Your task to perform on an android device: Open the Play Movies app and select the watchlist tab. Image 0: 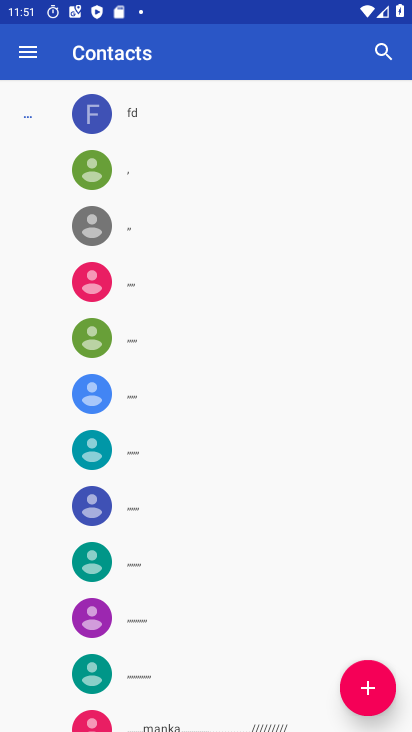
Step 0: press home button
Your task to perform on an android device: Open the Play Movies app and select the watchlist tab. Image 1: 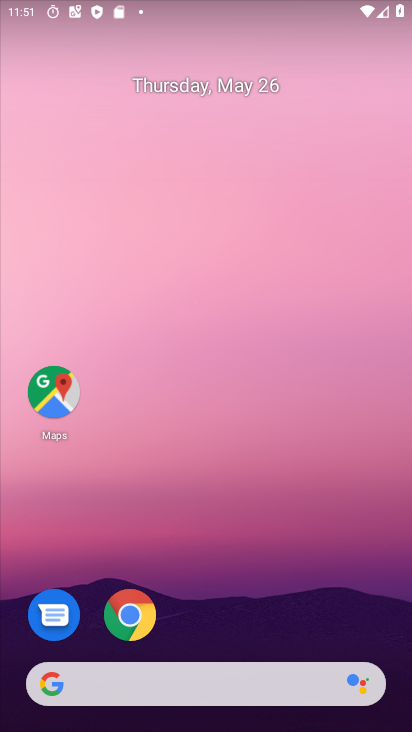
Step 1: drag from (219, 628) to (165, 383)
Your task to perform on an android device: Open the Play Movies app and select the watchlist tab. Image 2: 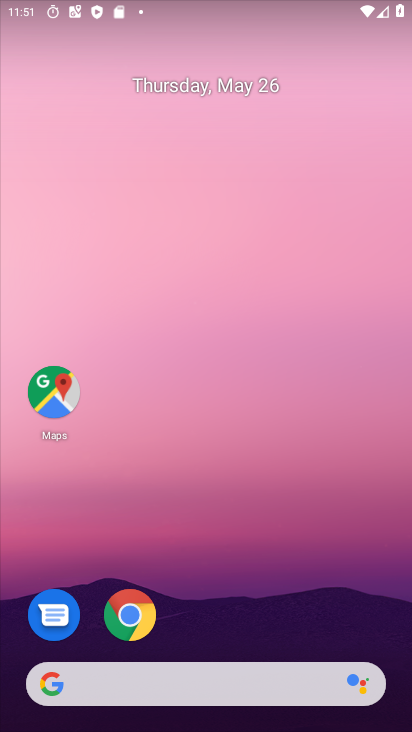
Step 2: drag from (205, 642) to (127, 259)
Your task to perform on an android device: Open the Play Movies app and select the watchlist tab. Image 3: 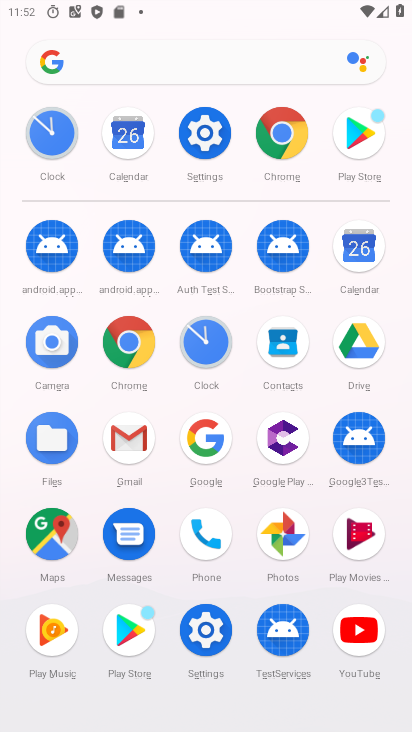
Step 3: click (360, 543)
Your task to perform on an android device: Open the Play Movies app and select the watchlist tab. Image 4: 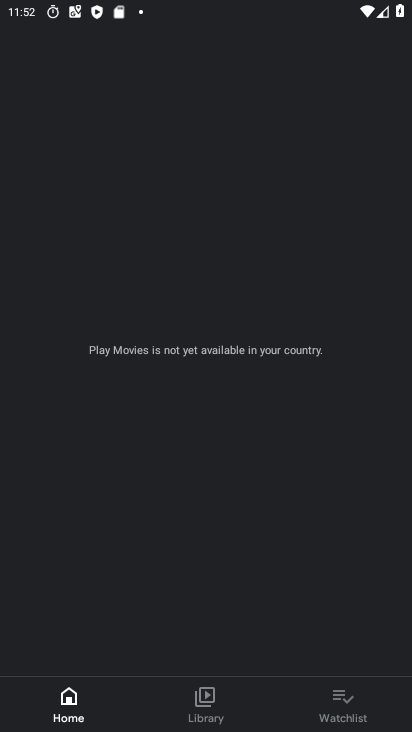
Step 4: click (351, 710)
Your task to perform on an android device: Open the Play Movies app and select the watchlist tab. Image 5: 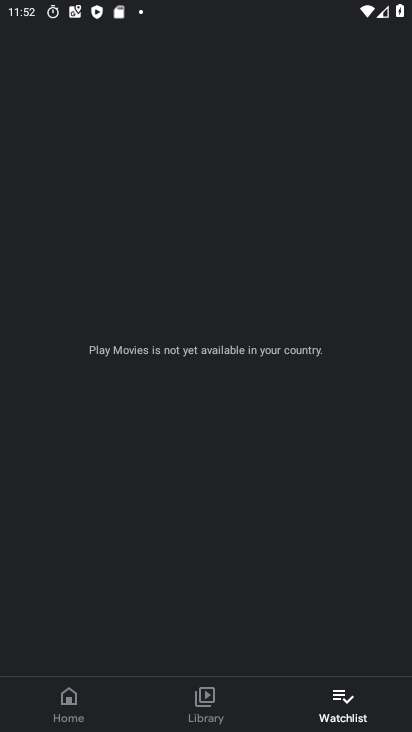
Step 5: task complete